Your task to perform on an android device: turn off translation in the chrome app Image 0: 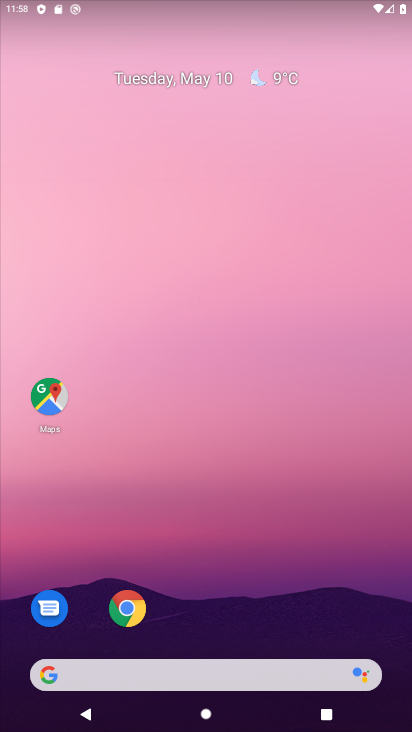
Step 0: drag from (247, 594) to (299, 283)
Your task to perform on an android device: turn off translation in the chrome app Image 1: 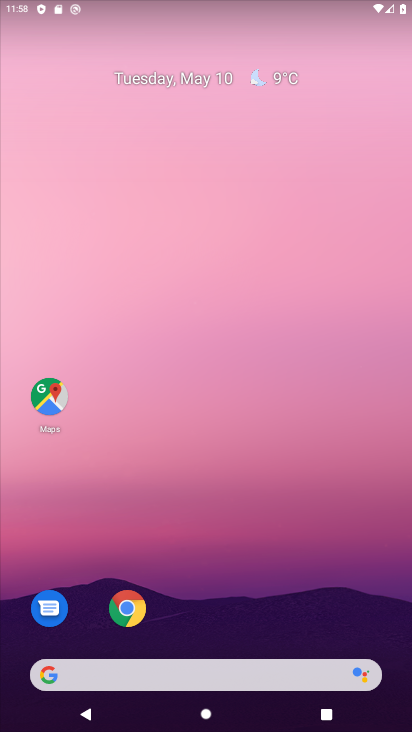
Step 1: drag from (252, 652) to (293, 220)
Your task to perform on an android device: turn off translation in the chrome app Image 2: 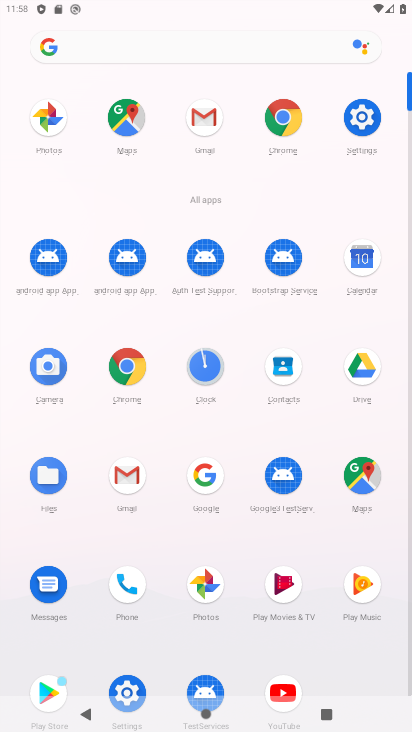
Step 2: click (286, 145)
Your task to perform on an android device: turn off translation in the chrome app Image 3: 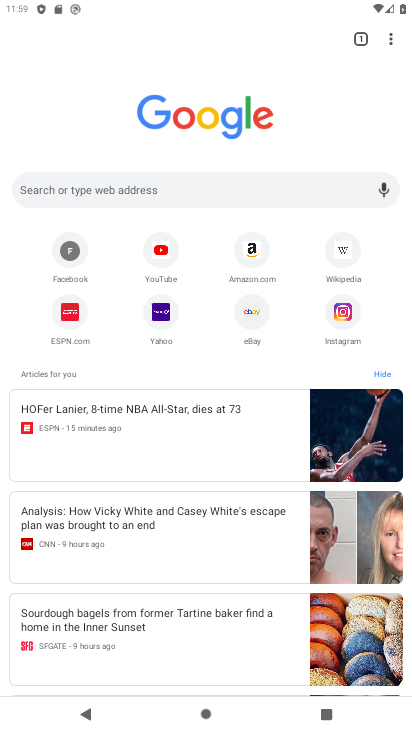
Step 3: click (393, 41)
Your task to perform on an android device: turn off translation in the chrome app Image 4: 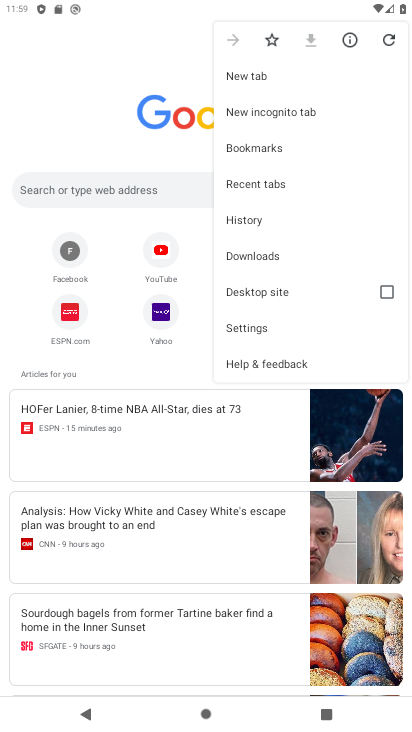
Step 4: drag from (313, 325) to (318, 264)
Your task to perform on an android device: turn off translation in the chrome app Image 5: 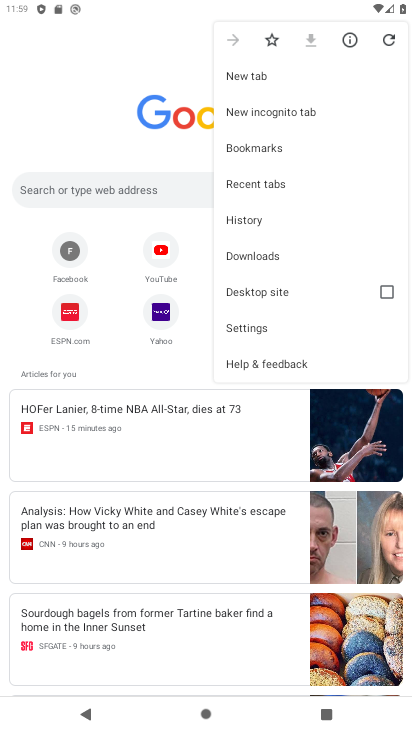
Step 5: click (282, 333)
Your task to perform on an android device: turn off translation in the chrome app Image 6: 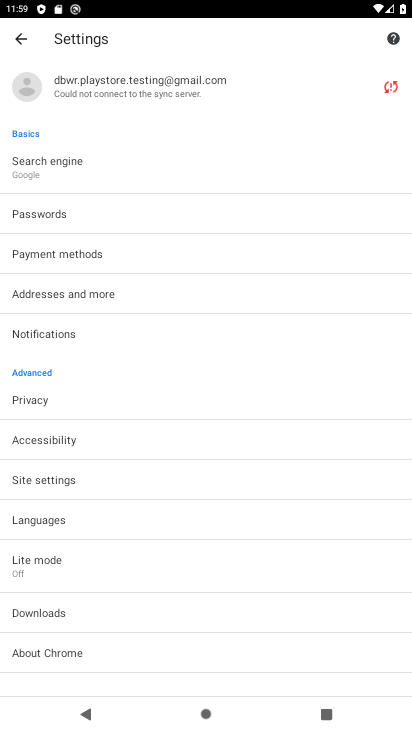
Step 6: task complete